Your task to perform on an android device: What's on my calendar today? Image 0: 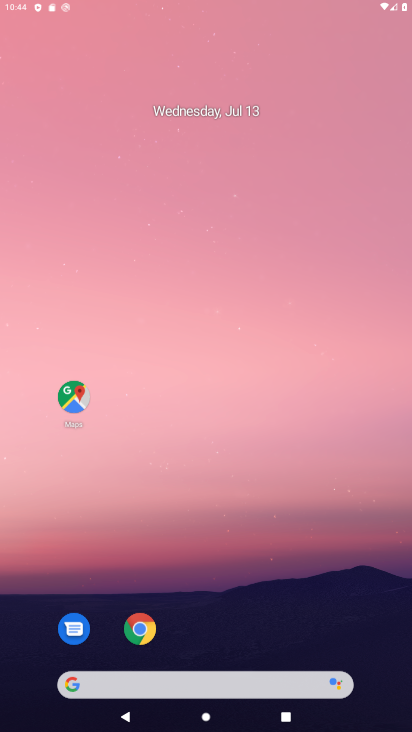
Step 0: drag from (230, 206) to (229, 155)
Your task to perform on an android device: What's on my calendar today? Image 1: 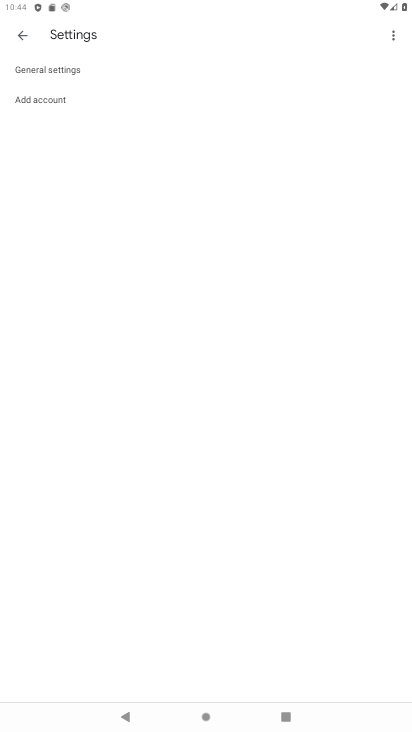
Step 1: press home button
Your task to perform on an android device: What's on my calendar today? Image 2: 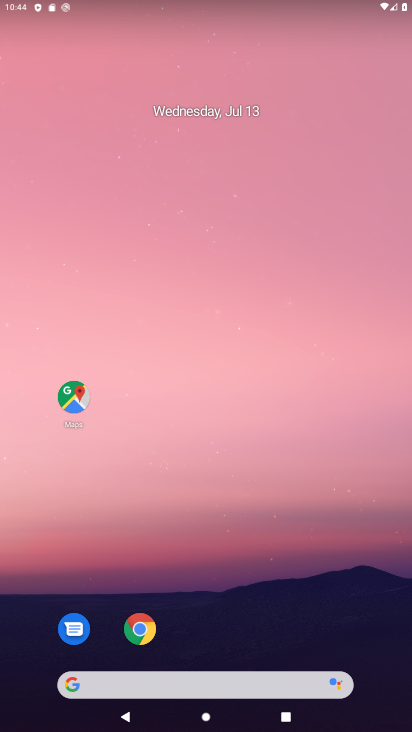
Step 2: drag from (229, 707) to (229, 236)
Your task to perform on an android device: What's on my calendar today? Image 3: 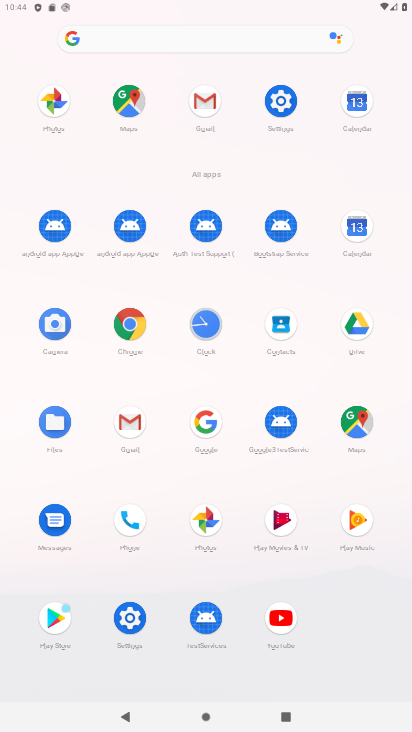
Step 3: click (357, 232)
Your task to perform on an android device: What's on my calendar today? Image 4: 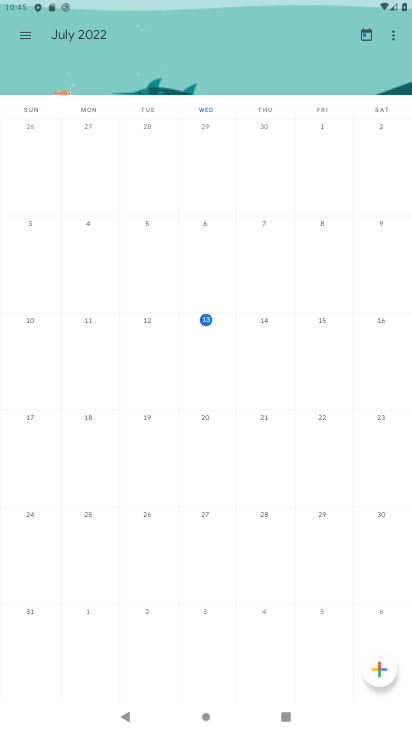
Step 4: click (205, 317)
Your task to perform on an android device: What's on my calendar today? Image 5: 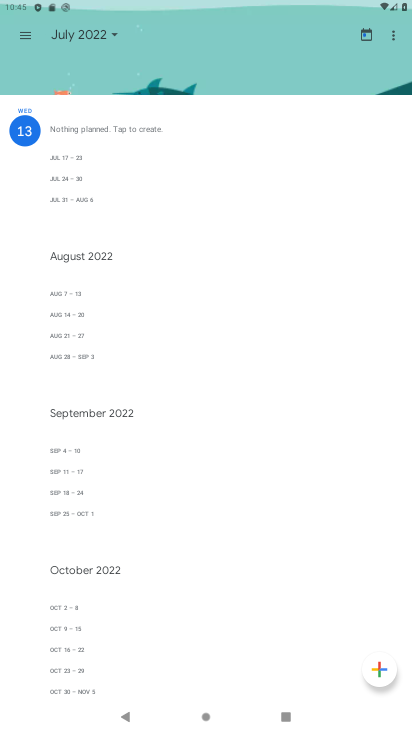
Step 5: task complete